Your task to perform on an android device: Go to ESPN.com Image 0: 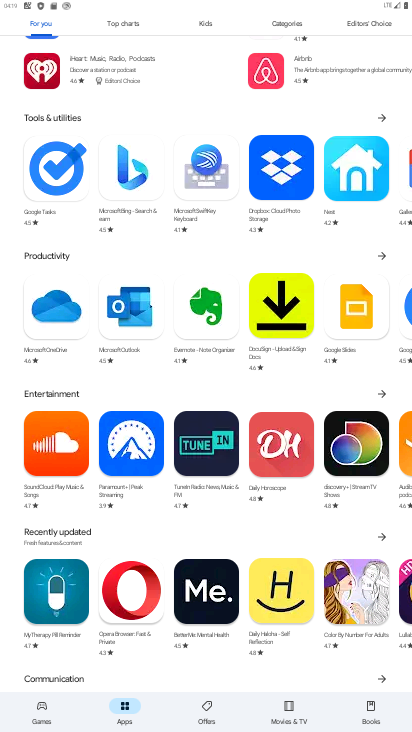
Step 0: press home button
Your task to perform on an android device: Go to ESPN.com Image 1: 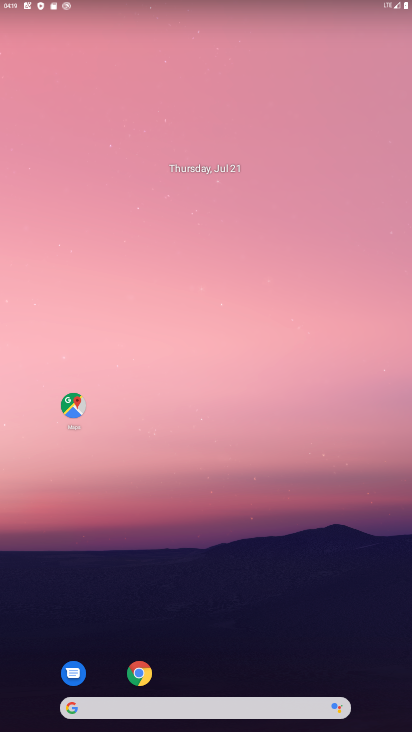
Step 1: drag from (292, 636) to (52, 61)
Your task to perform on an android device: Go to ESPN.com Image 2: 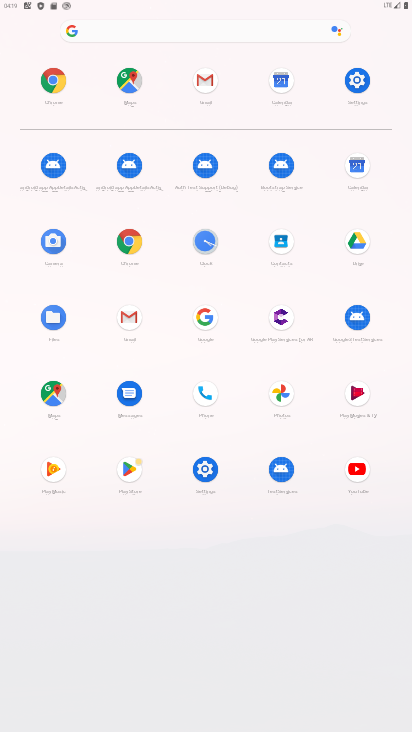
Step 2: click (125, 236)
Your task to perform on an android device: Go to ESPN.com Image 3: 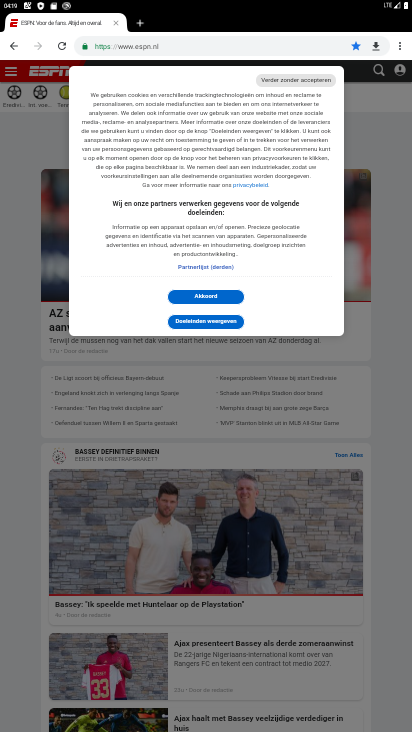
Step 3: task complete